Your task to perform on an android device: stop showing notifications on the lock screen Image 0: 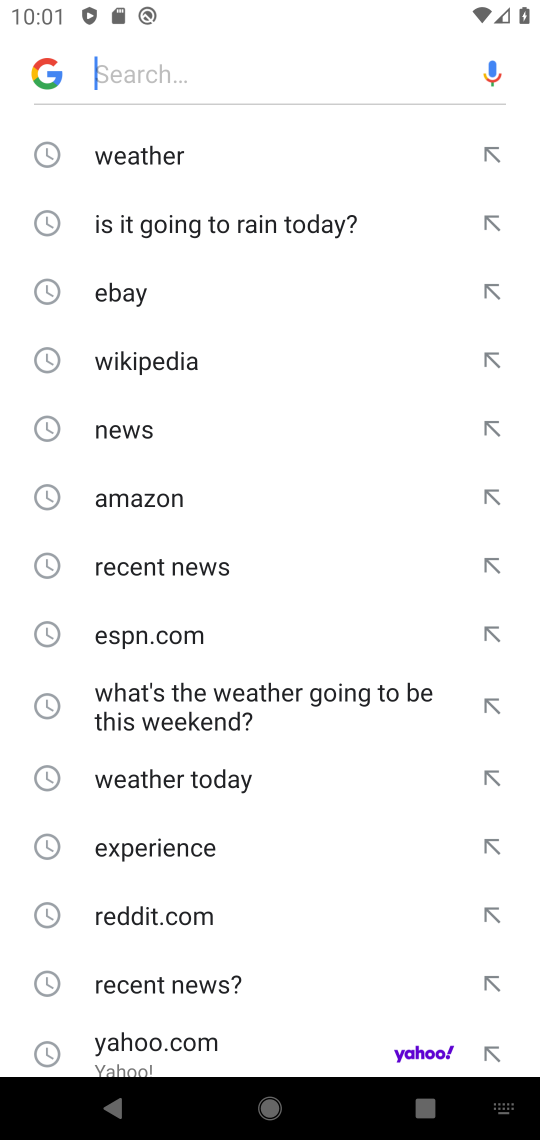
Step 0: press home button
Your task to perform on an android device: stop showing notifications on the lock screen Image 1: 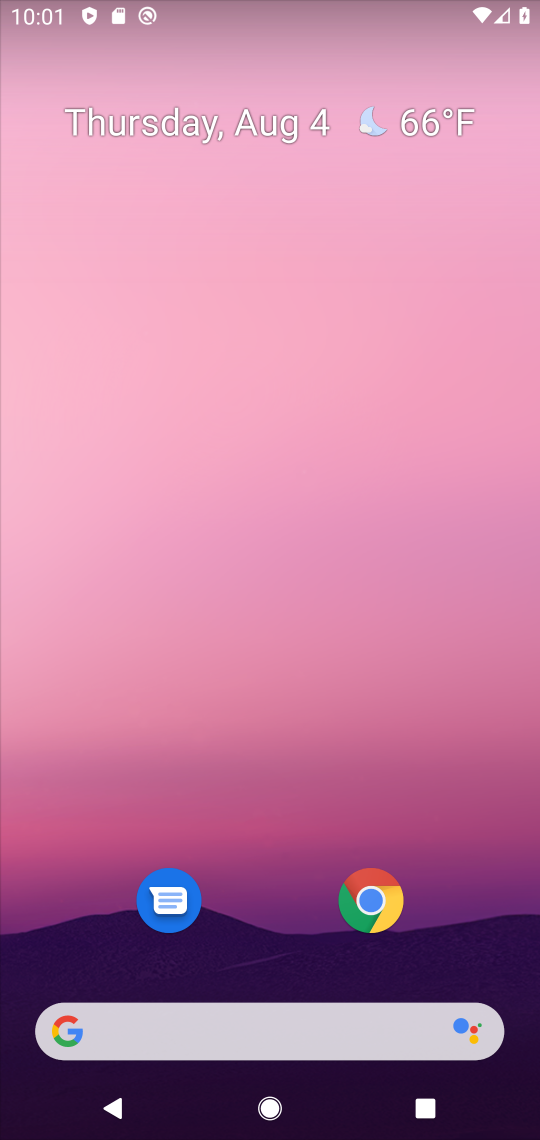
Step 1: drag from (487, 951) to (341, 100)
Your task to perform on an android device: stop showing notifications on the lock screen Image 2: 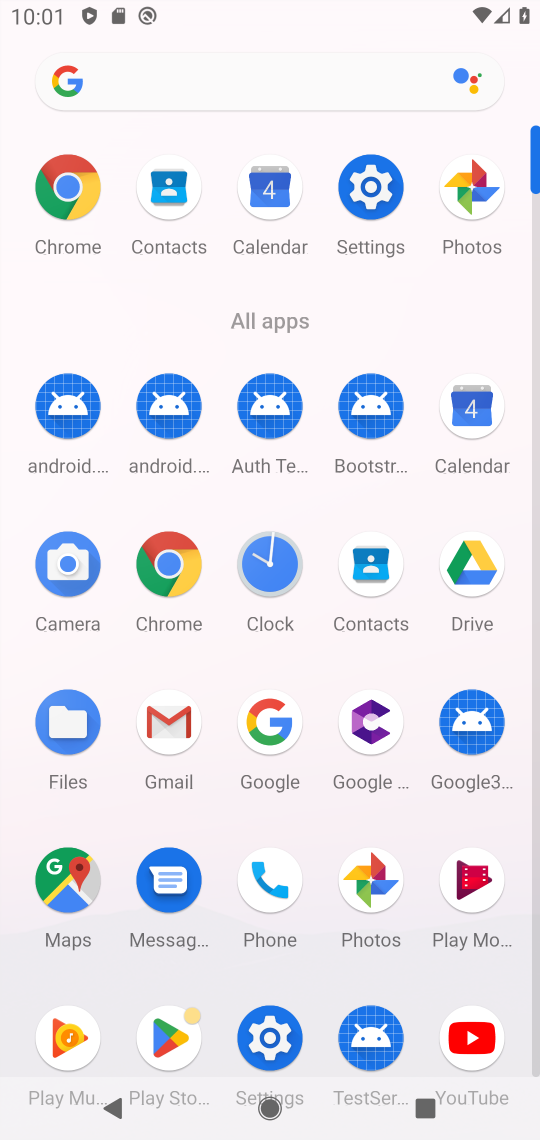
Step 2: click (367, 200)
Your task to perform on an android device: stop showing notifications on the lock screen Image 3: 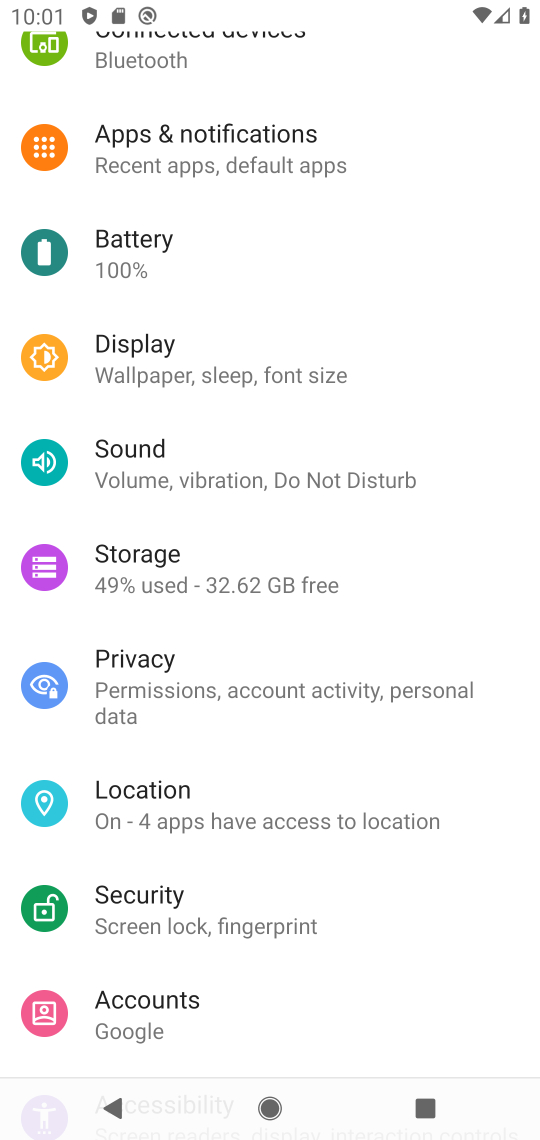
Step 3: drag from (227, 485) to (255, 758)
Your task to perform on an android device: stop showing notifications on the lock screen Image 4: 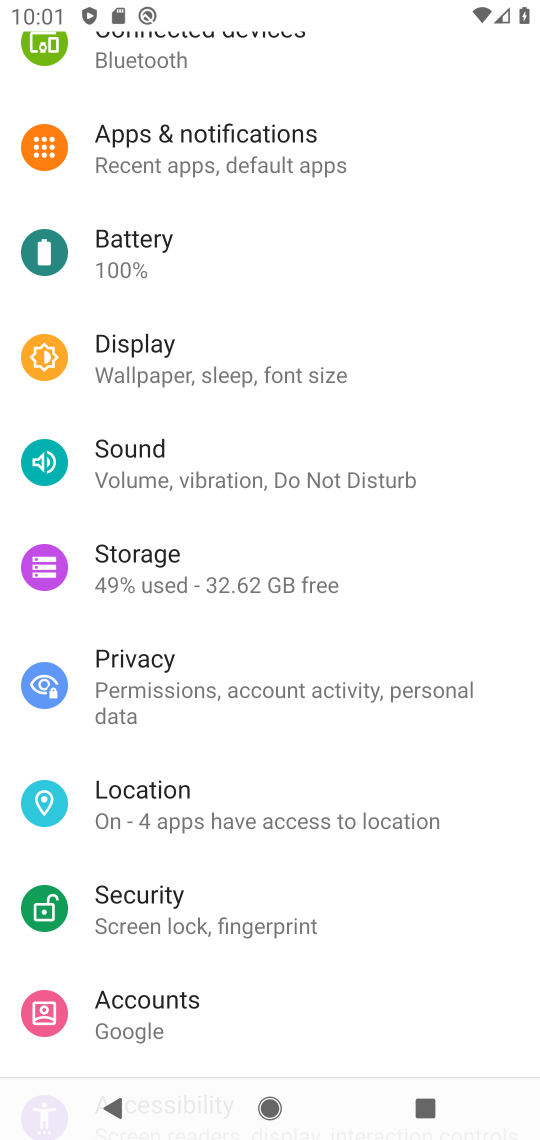
Step 4: click (251, 152)
Your task to perform on an android device: stop showing notifications on the lock screen Image 5: 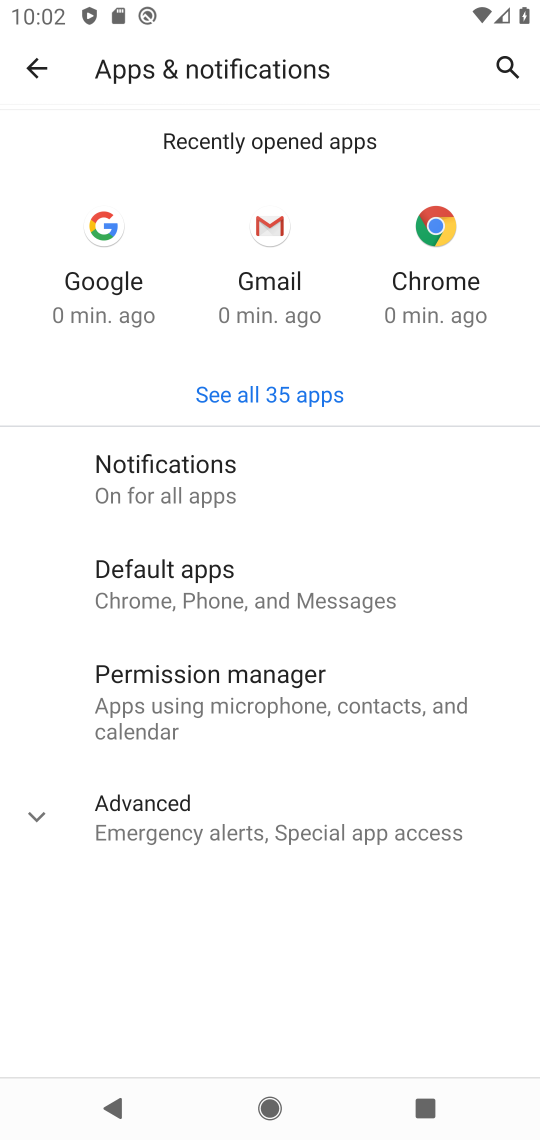
Step 5: click (243, 486)
Your task to perform on an android device: stop showing notifications on the lock screen Image 6: 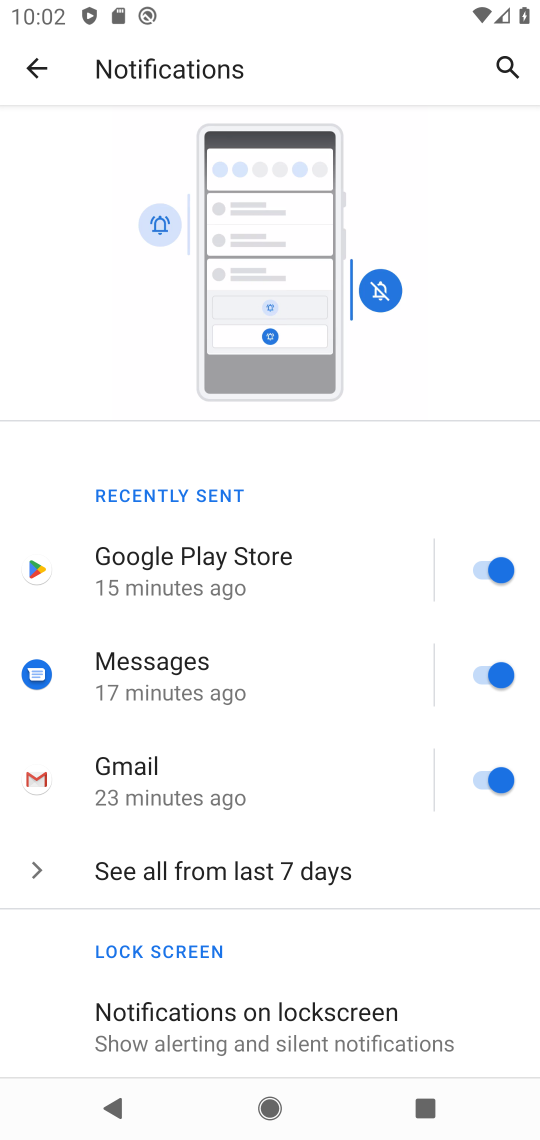
Step 6: drag from (335, 972) to (302, 546)
Your task to perform on an android device: stop showing notifications on the lock screen Image 7: 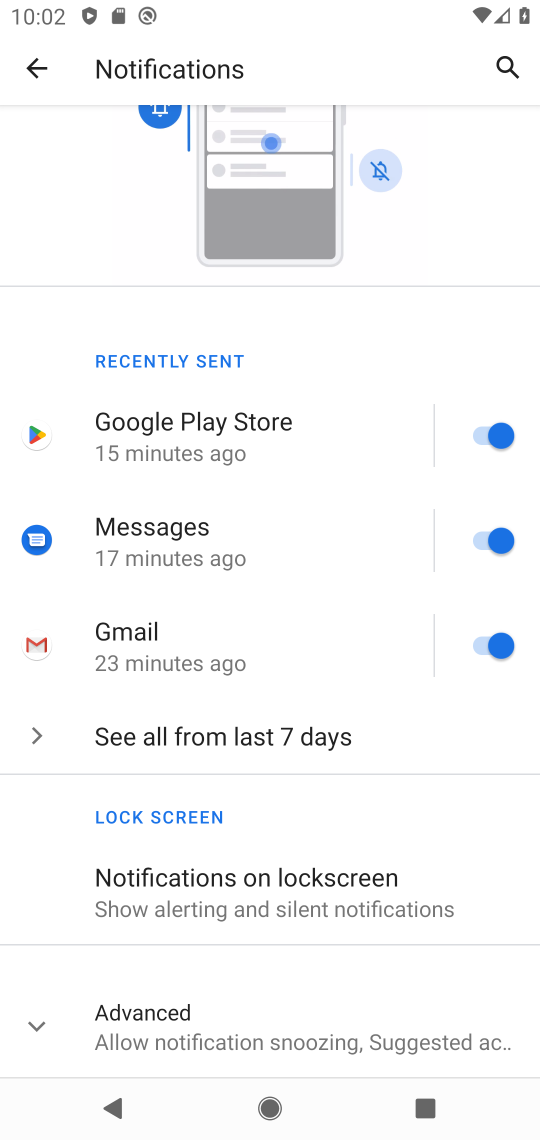
Step 7: click (409, 871)
Your task to perform on an android device: stop showing notifications on the lock screen Image 8: 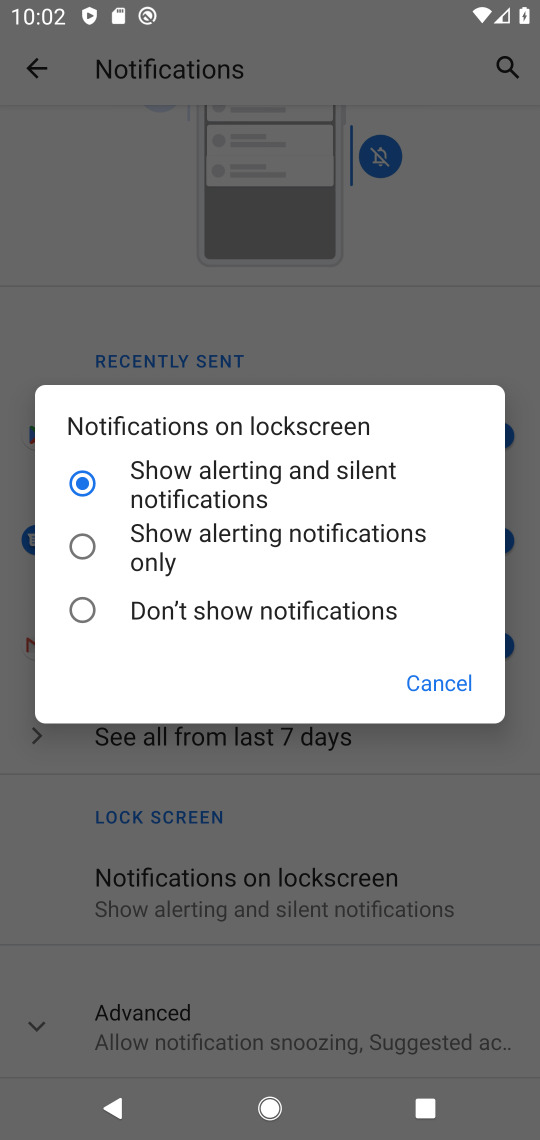
Step 8: click (266, 621)
Your task to perform on an android device: stop showing notifications on the lock screen Image 9: 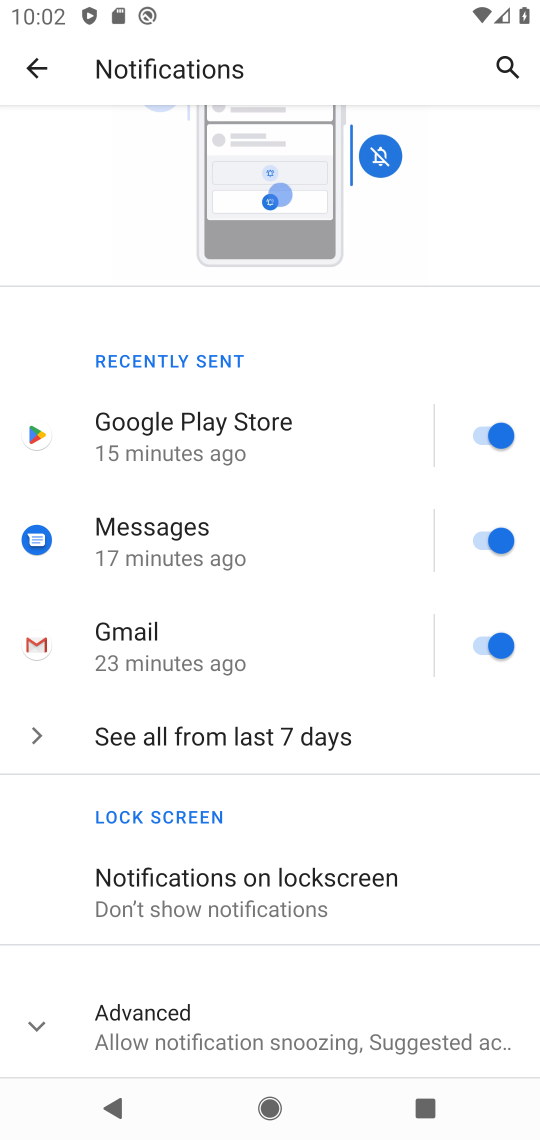
Step 9: task complete